Your task to perform on an android device: Open Google Chrome and open the bookmarks view Image 0: 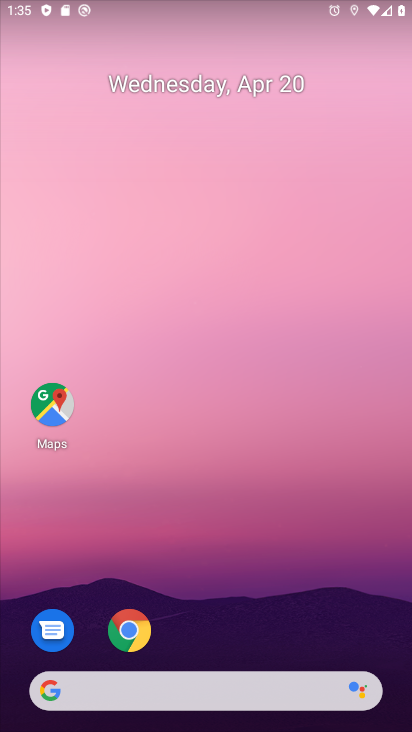
Step 0: click (129, 628)
Your task to perform on an android device: Open Google Chrome and open the bookmarks view Image 1: 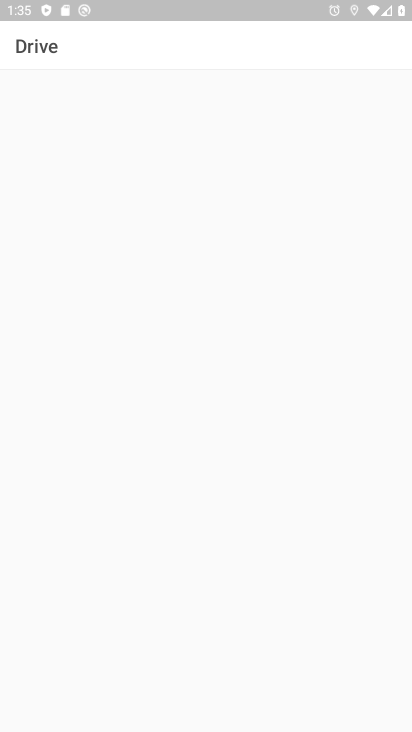
Step 1: press home button
Your task to perform on an android device: Open Google Chrome and open the bookmarks view Image 2: 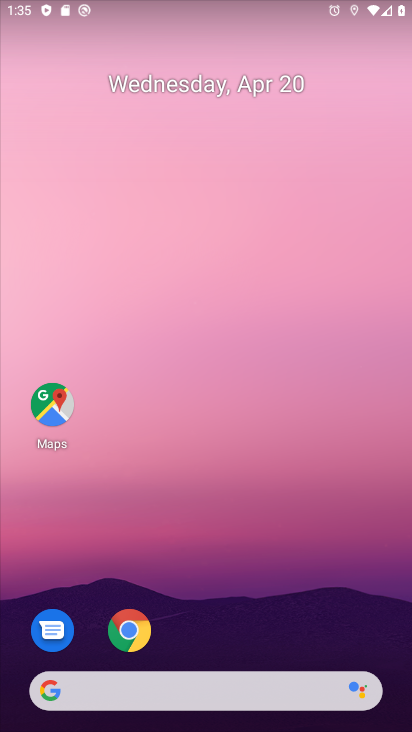
Step 2: click (128, 634)
Your task to perform on an android device: Open Google Chrome and open the bookmarks view Image 3: 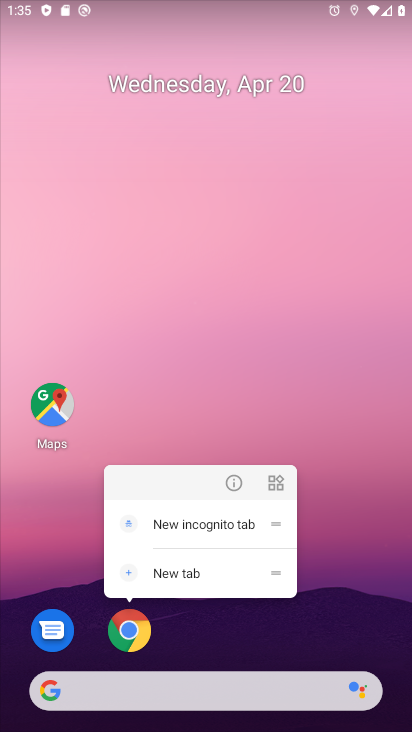
Step 3: click (128, 634)
Your task to perform on an android device: Open Google Chrome and open the bookmarks view Image 4: 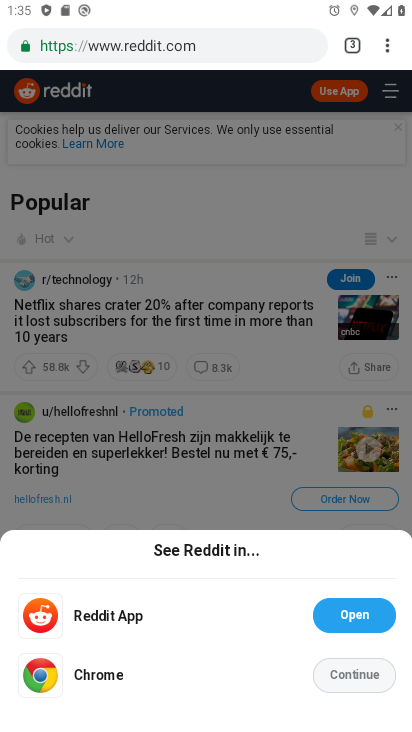
Step 4: click (387, 47)
Your task to perform on an android device: Open Google Chrome and open the bookmarks view Image 5: 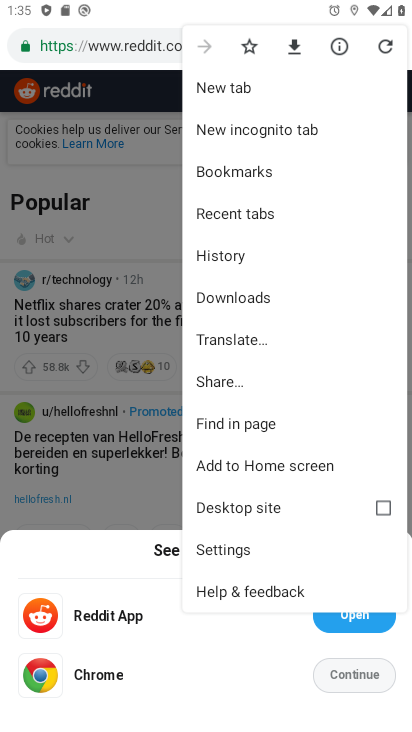
Step 5: click (220, 173)
Your task to perform on an android device: Open Google Chrome and open the bookmarks view Image 6: 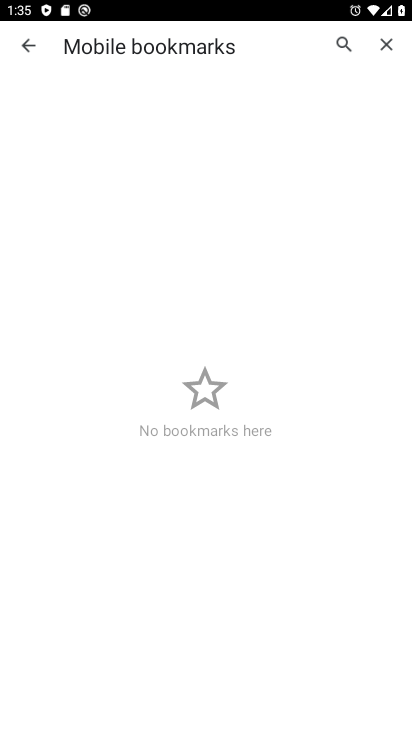
Step 6: task complete